Your task to perform on an android device: turn off sleep mode Image 0: 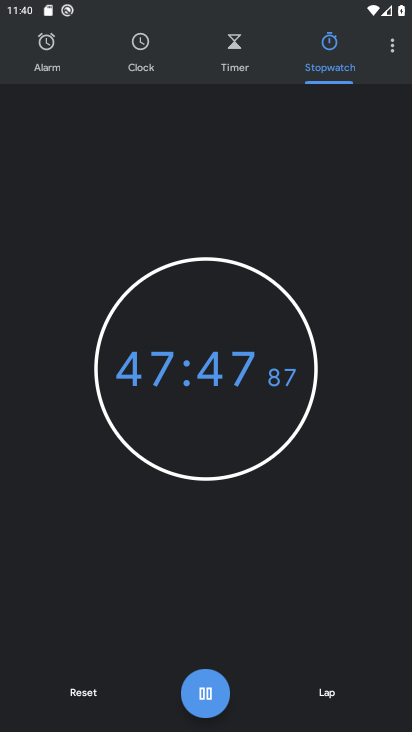
Step 0: press home button
Your task to perform on an android device: turn off sleep mode Image 1: 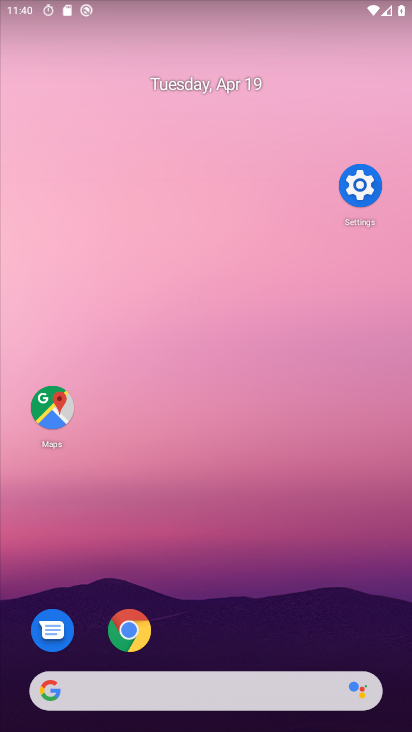
Step 1: drag from (272, 644) to (265, 482)
Your task to perform on an android device: turn off sleep mode Image 2: 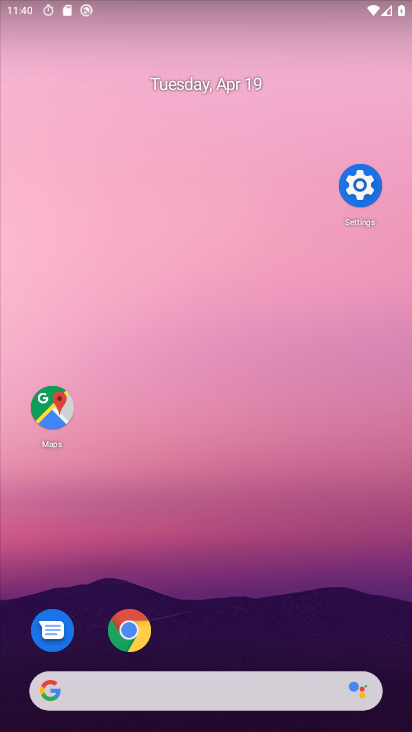
Step 2: drag from (227, 581) to (276, 187)
Your task to perform on an android device: turn off sleep mode Image 3: 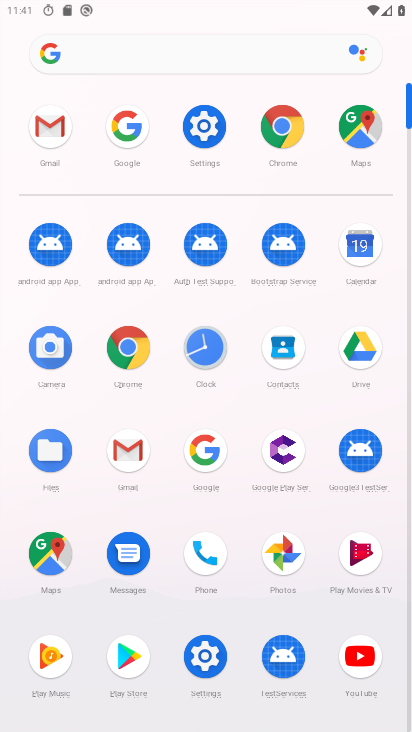
Step 3: click (214, 136)
Your task to perform on an android device: turn off sleep mode Image 4: 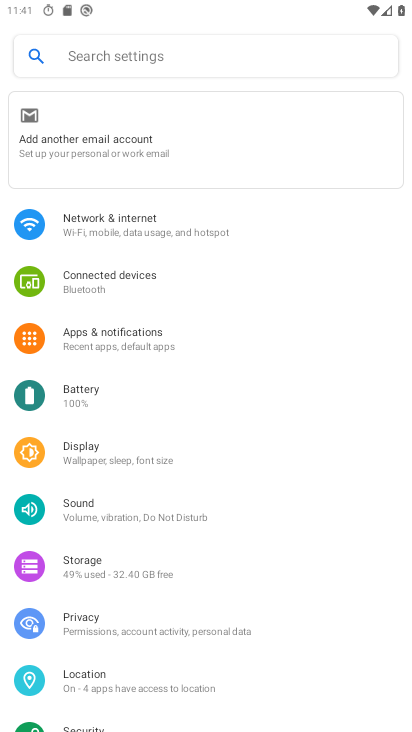
Step 4: click (222, 452)
Your task to perform on an android device: turn off sleep mode Image 5: 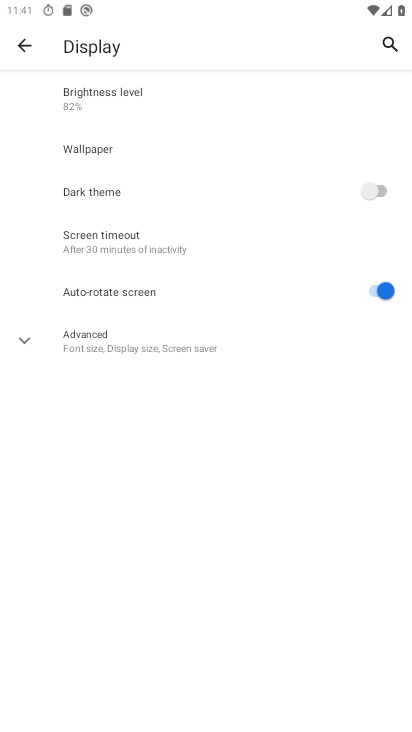
Step 5: click (327, 344)
Your task to perform on an android device: turn off sleep mode Image 6: 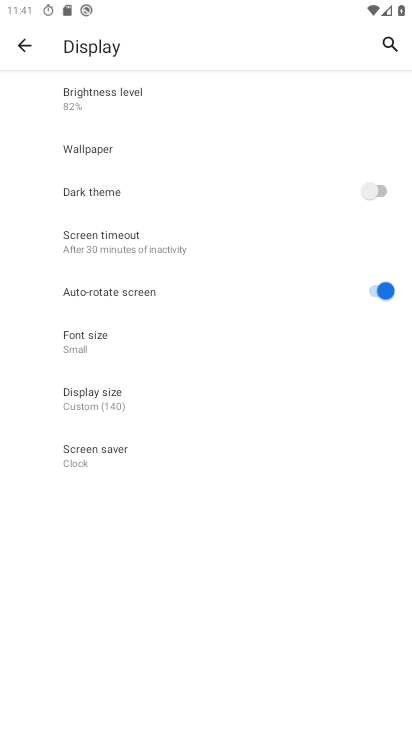
Step 6: task complete